Your task to perform on an android device: toggle translation in the chrome app Image 0: 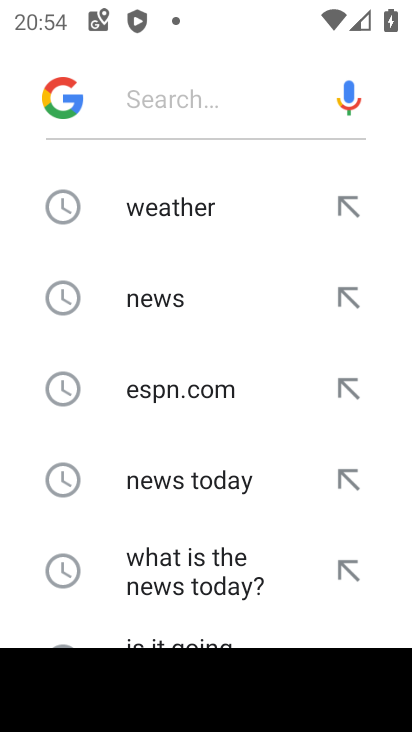
Step 0: press home button
Your task to perform on an android device: toggle translation in the chrome app Image 1: 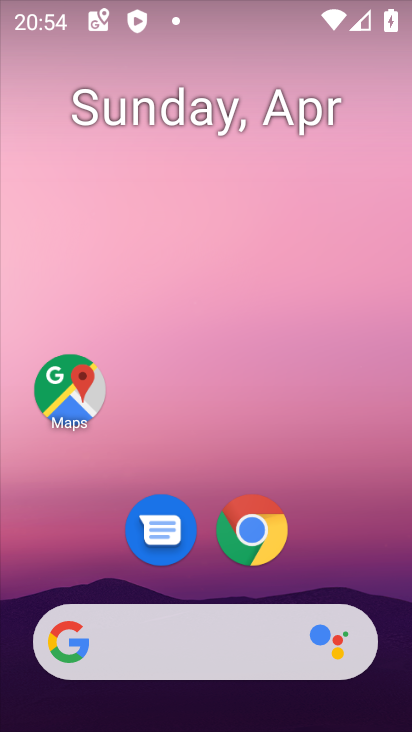
Step 1: click (260, 529)
Your task to perform on an android device: toggle translation in the chrome app Image 2: 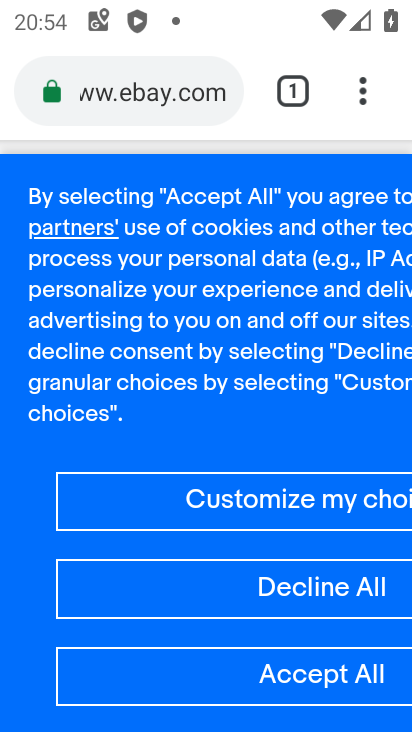
Step 2: click (366, 79)
Your task to perform on an android device: toggle translation in the chrome app Image 3: 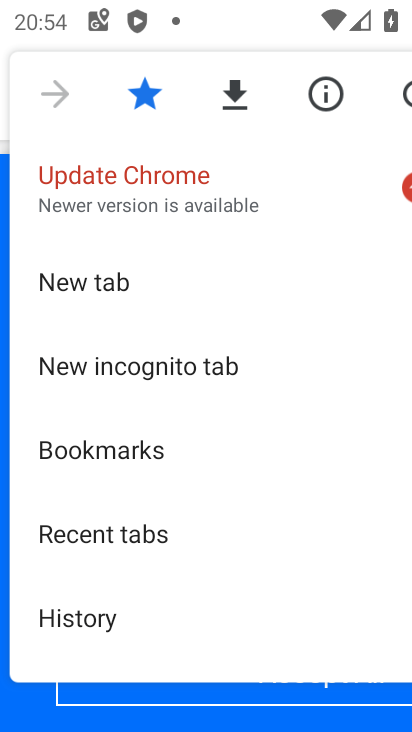
Step 3: drag from (136, 510) to (211, 33)
Your task to perform on an android device: toggle translation in the chrome app Image 4: 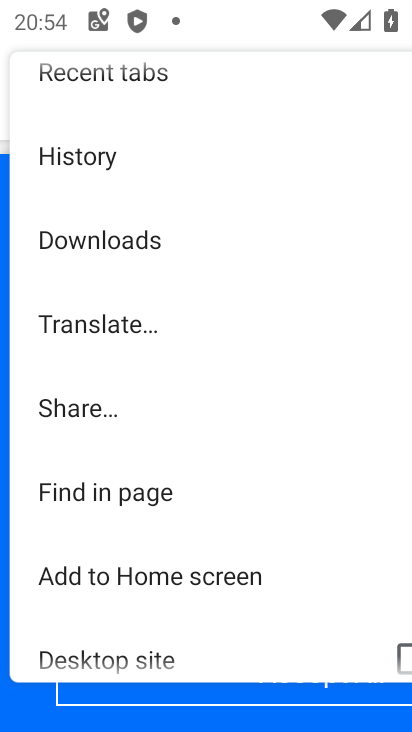
Step 4: drag from (226, 603) to (257, 99)
Your task to perform on an android device: toggle translation in the chrome app Image 5: 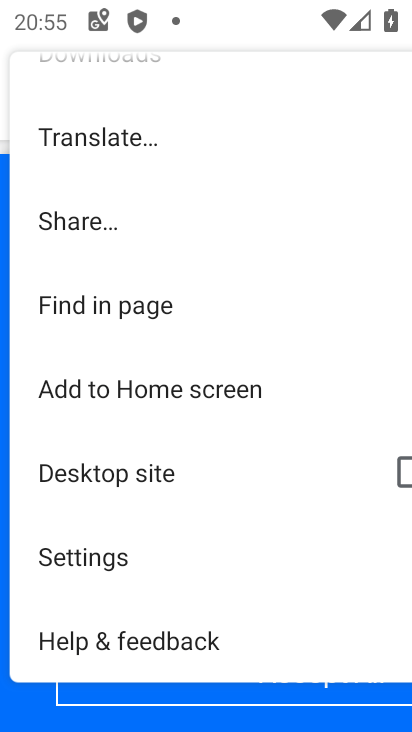
Step 5: click (109, 558)
Your task to perform on an android device: toggle translation in the chrome app Image 6: 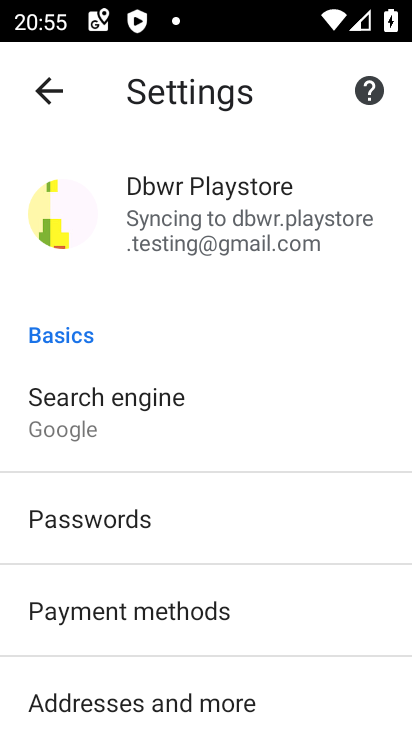
Step 6: drag from (148, 497) to (203, 196)
Your task to perform on an android device: toggle translation in the chrome app Image 7: 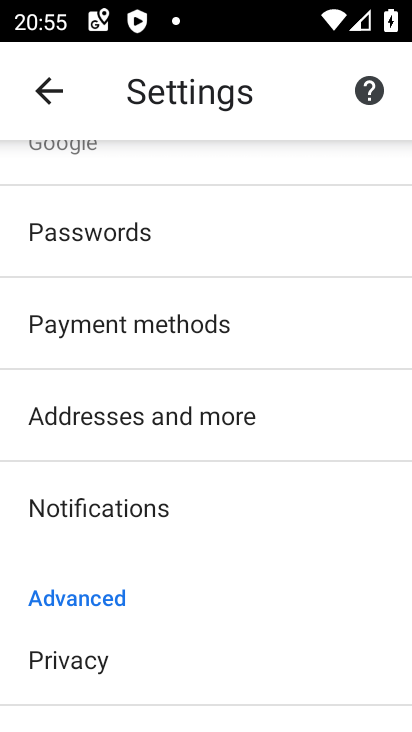
Step 7: drag from (125, 578) to (159, 256)
Your task to perform on an android device: toggle translation in the chrome app Image 8: 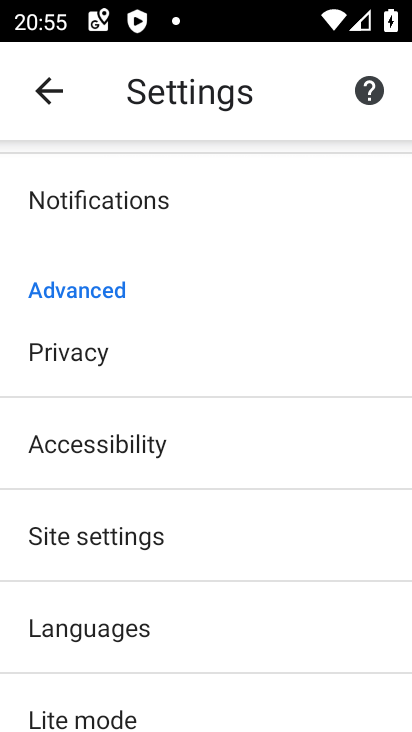
Step 8: click (76, 625)
Your task to perform on an android device: toggle translation in the chrome app Image 9: 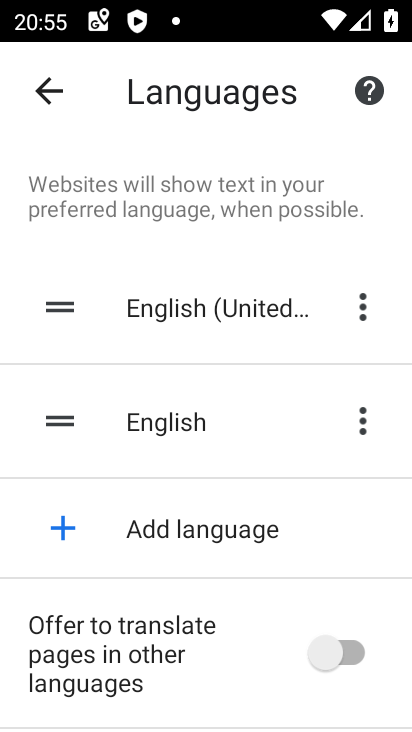
Step 9: click (327, 651)
Your task to perform on an android device: toggle translation in the chrome app Image 10: 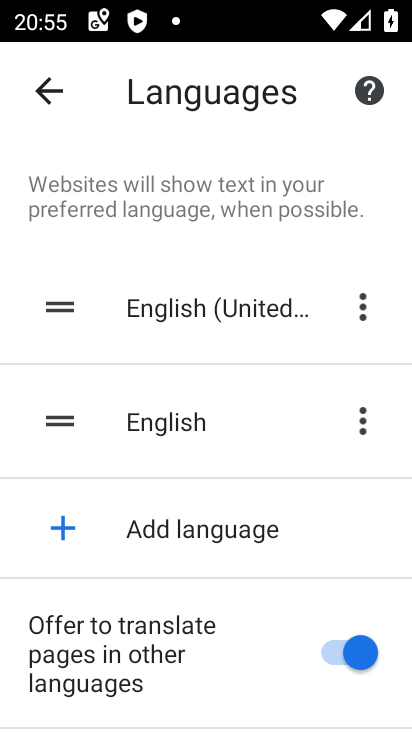
Step 10: task complete